Your task to perform on an android device: move a message to another label in the gmail app Image 0: 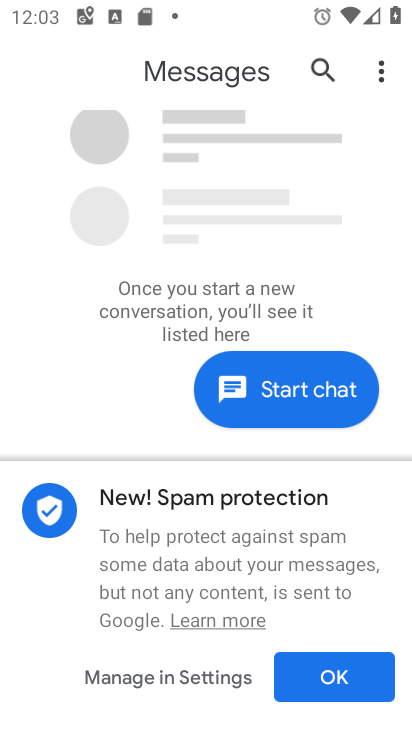
Step 0: press home button
Your task to perform on an android device: move a message to another label in the gmail app Image 1: 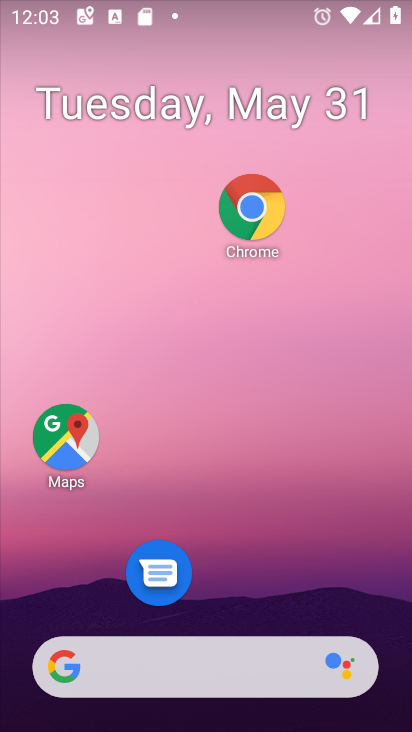
Step 1: drag from (186, 634) to (325, 5)
Your task to perform on an android device: move a message to another label in the gmail app Image 2: 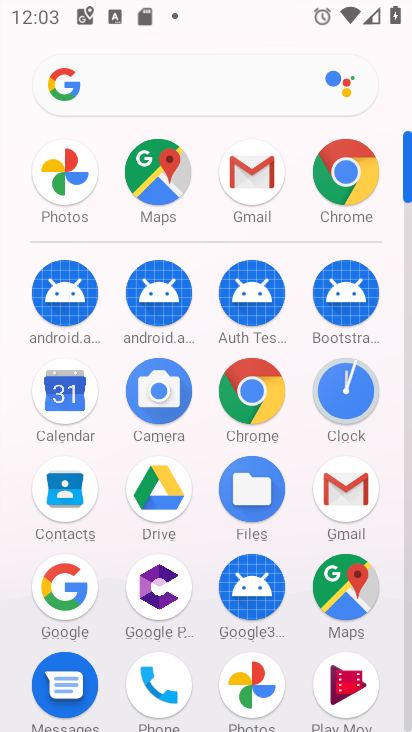
Step 2: click (352, 492)
Your task to perform on an android device: move a message to another label in the gmail app Image 3: 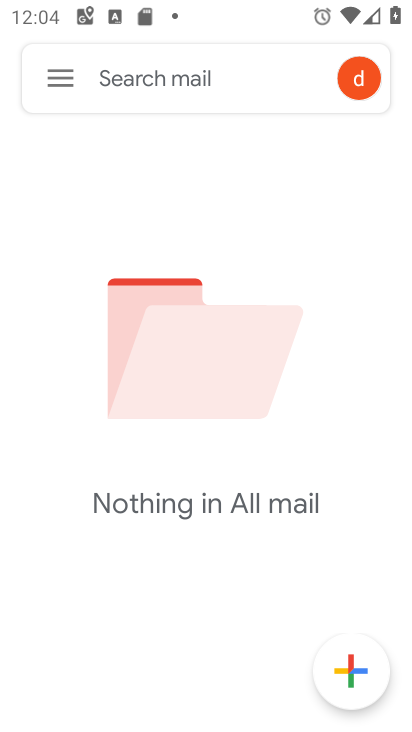
Step 3: click (55, 83)
Your task to perform on an android device: move a message to another label in the gmail app Image 4: 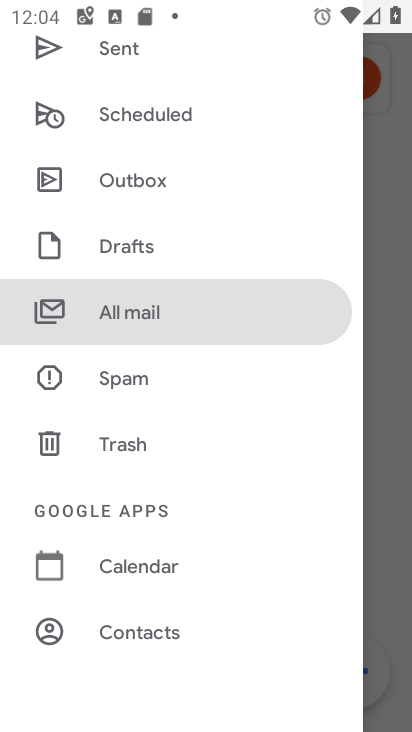
Step 4: drag from (113, 564) to (161, 217)
Your task to perform on an android device: move a message to another label in the gmail app Image 5: 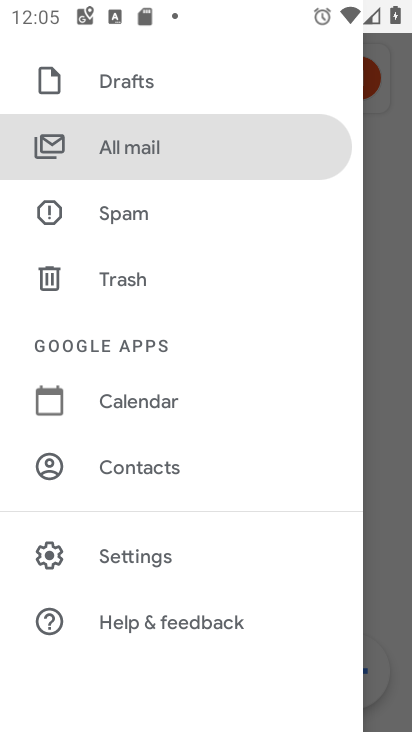
Step 5: click (164, 154)
Your task to perform on an android device: move a message to another label in the gmail app Image 6: 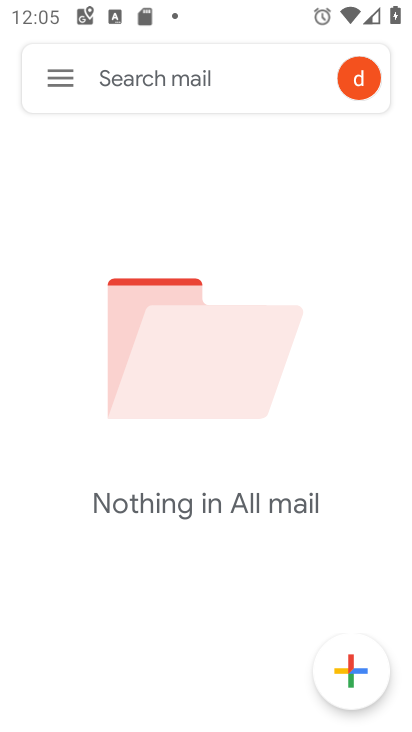
Step 6: task complete